Your task to perform on an android device: open chrome and create a bookmark for the current page Image 0: 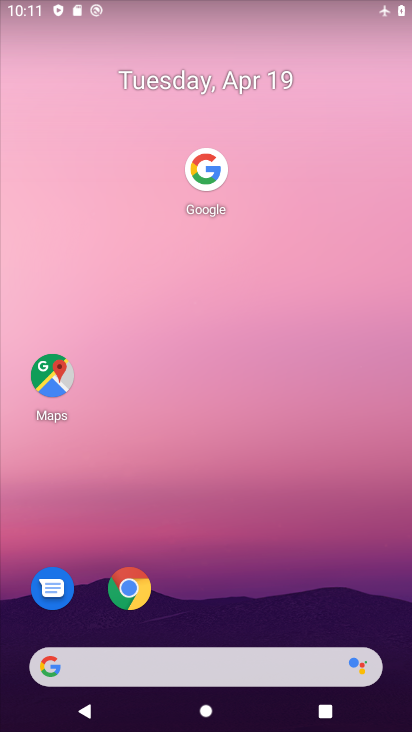
Step 0: click (135, 590)
Your task to perform on an android device: open chrome and create a bookmark for the current page Image 1: 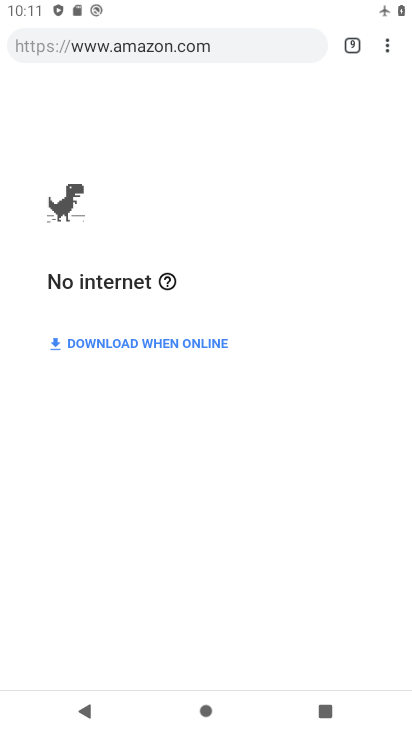
Step 1: click (379, 39)
Your task to perform on an android device: open chrome and create a bookmark for the current page Image 2: 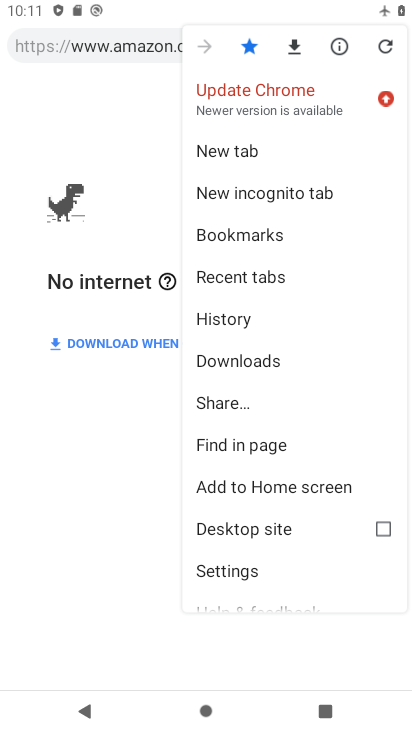
Step 2: click (139, 143)
Your task to perform on an android device: open chrome and create a bookmark for the current page Image 3: 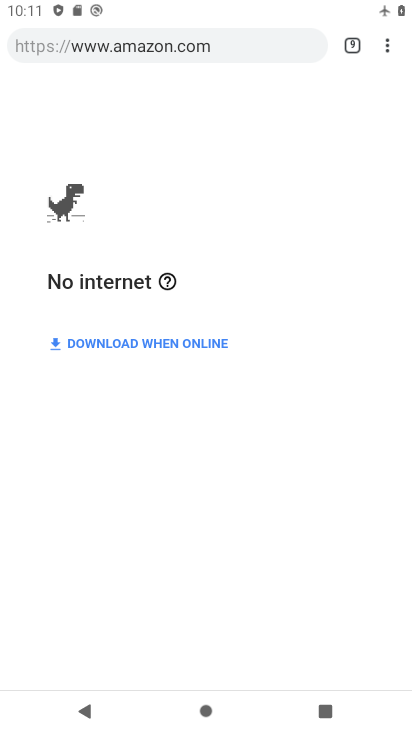
Step 3: task complete